Your task to perform on an android device: turn off priority inbox in the gmail app Image 0: 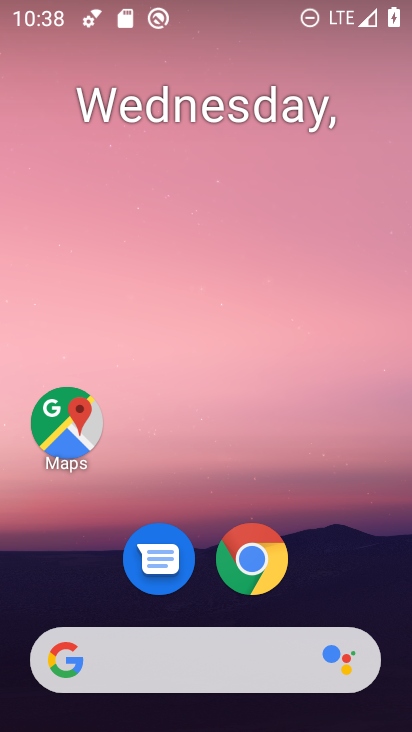
Step 0: drag from (347, 559) to (346, 146)
Your task to perform on an android device: turn off priority inbox in the gmail app Image 1: 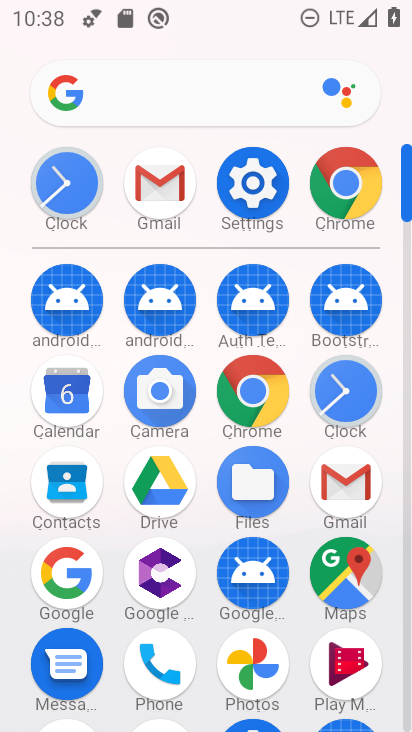
Step 1: click (357, 483)
Your task to perform on an android device: turn off priority inbox in the gmail app Image 2: 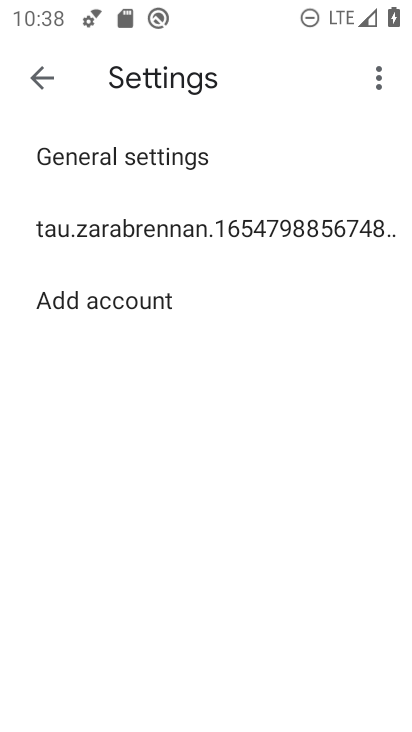
Step 2: click (271, 213)
Your task to perform on an android device: turn off priority inbox in the gmail app Image 3: 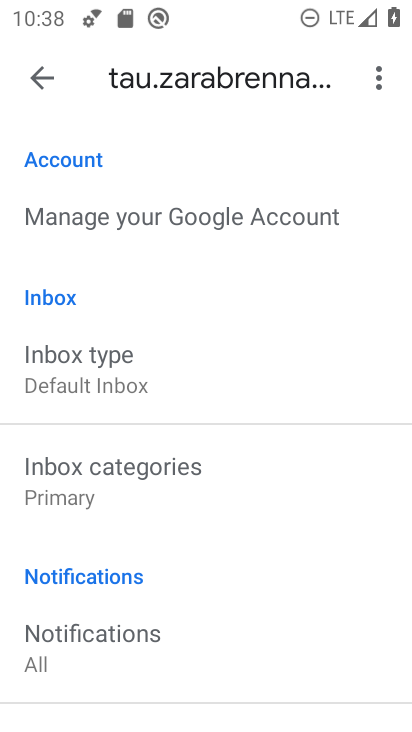
Step 3: task complete